Your task to perform on an android device: open a new tab in the chrome app Image 0: 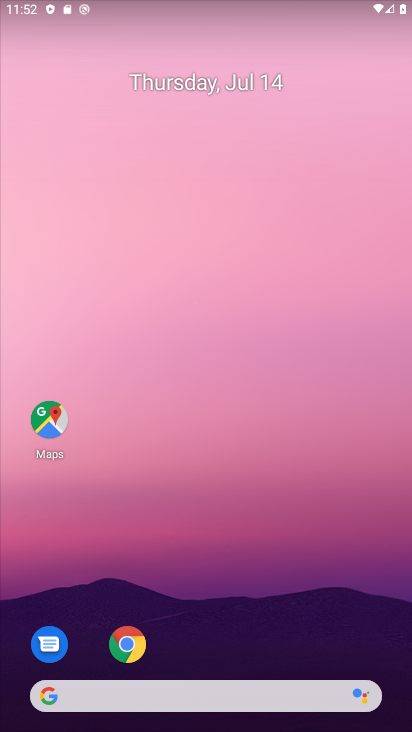
Step 0: drag from (199, 663) to (392, 331)
Your task to perform on an android device: open a new tab in the chrome app Image 1: 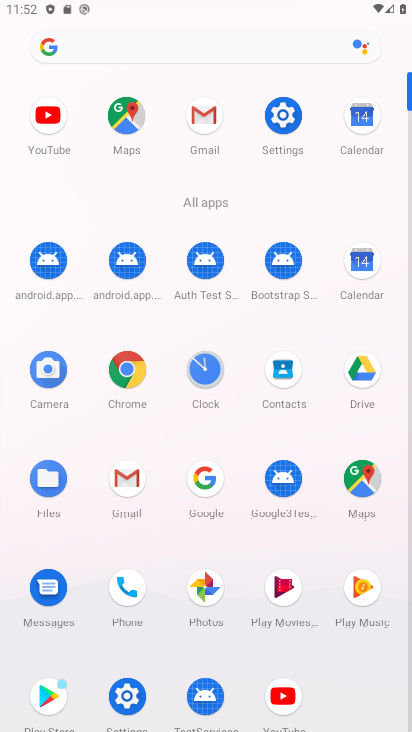
Step 1: click (137, 367)
Your task to perform on an android device: open a new tab in the chrome app Image 2: 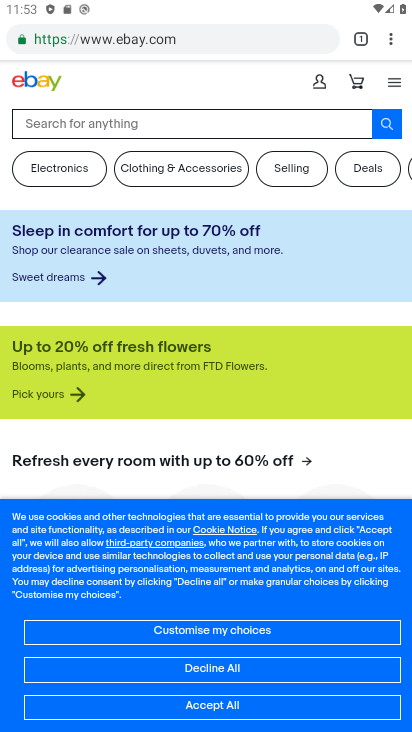
Step 2: click (357, 41)
Your task to perform on an android device: open a new tab in the chrome app Image 3: 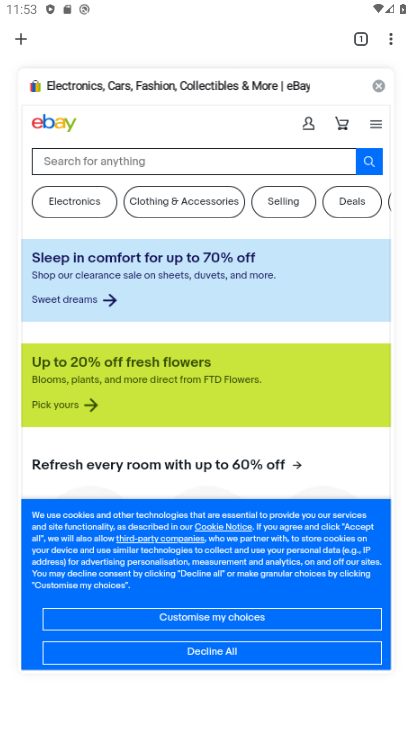
Step 3: click (18, 42)
Your task to perform on an android device: open a new tab in the chrome app Image 4: 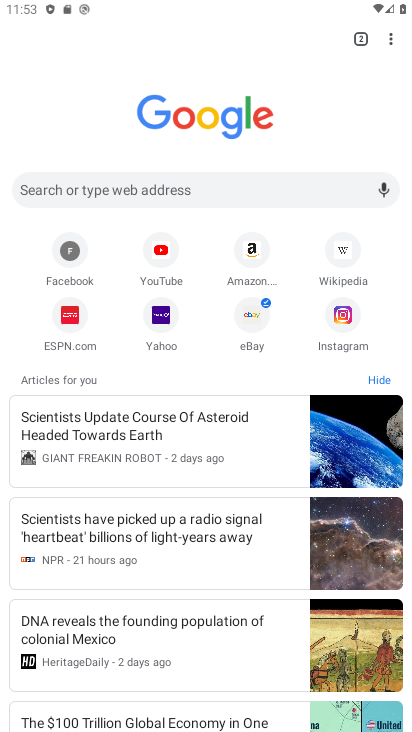
Step 4: task complete